Your task to perform on an android device: change alarm snooze length Image 0: 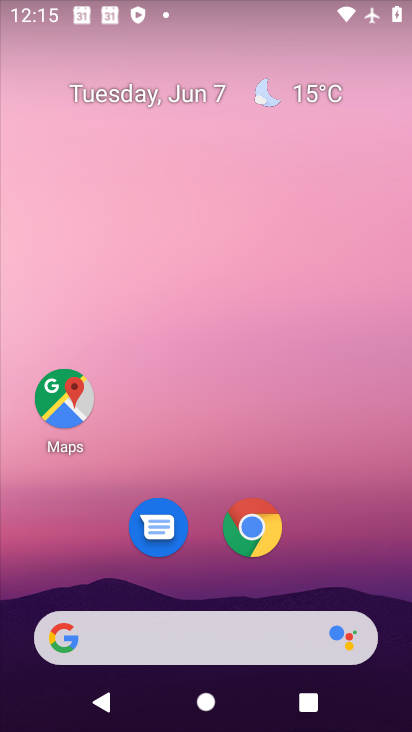
Step 0: drag from (231, 503) to (177, 258)
Your task to perform on an android device: change alarm snooze length Image 1: 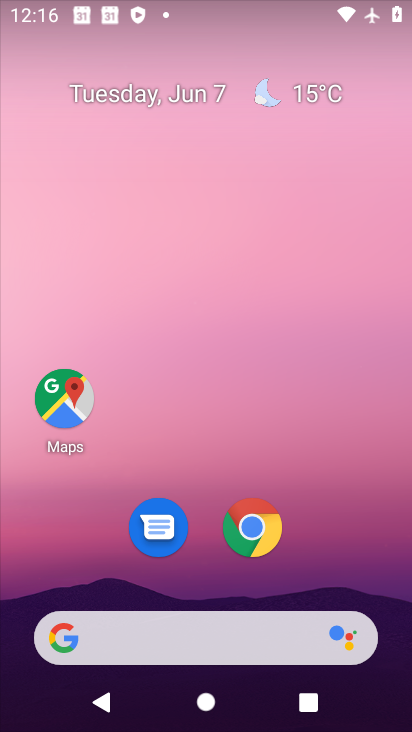
Step 1: click (411, 402)
Your task to perform on an android device: change alarm snooze length Image 2: 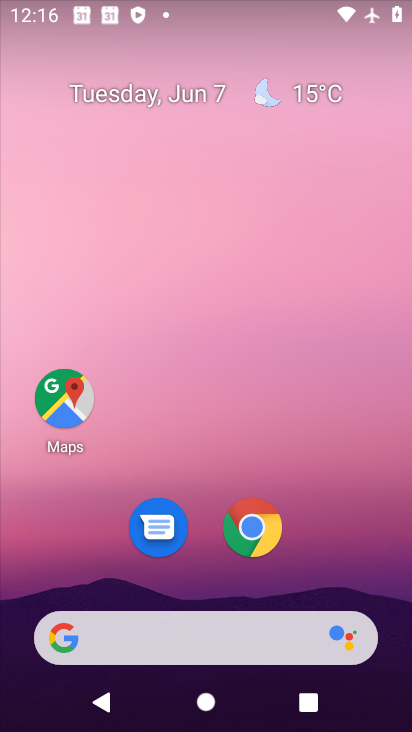
Step 2: drag from (275, 572) to (227, 12)
Your task to perform on an android device: change alarm snooze length Image 3: 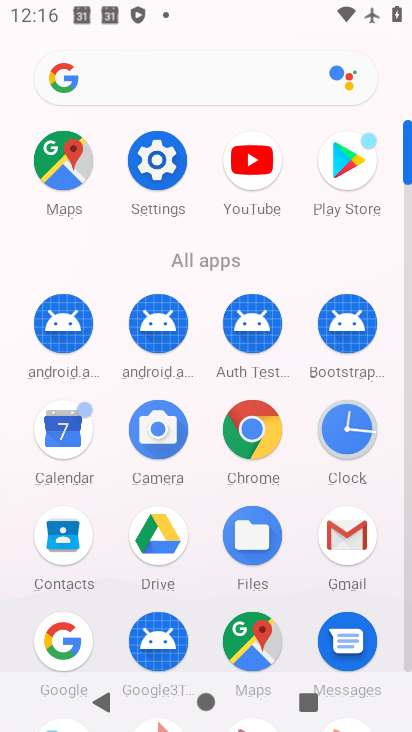
Step 3: click (347, 437)
Your task to perform on an android device: change alarm snooze length Image 4: 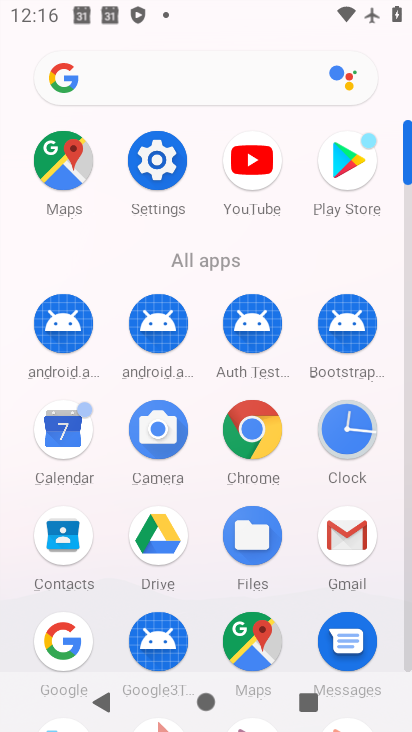
Step 4: click (355, 429)
Your task to perform on an android device: change alarm snooze length Image 5: 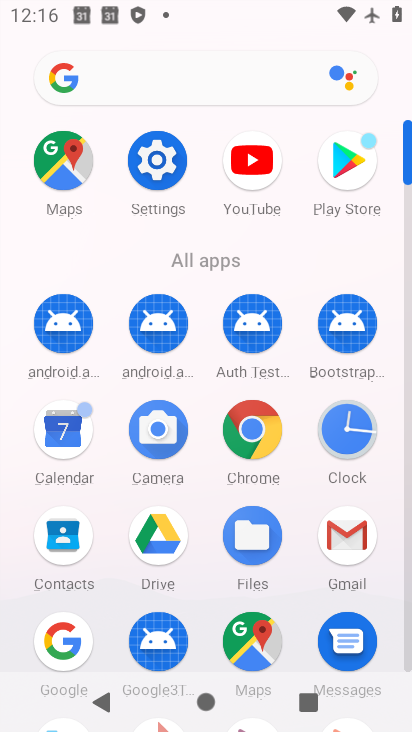
Step 5: click (355, 429)
Your task to perform on an android device: change alarm snooze length Image 6: 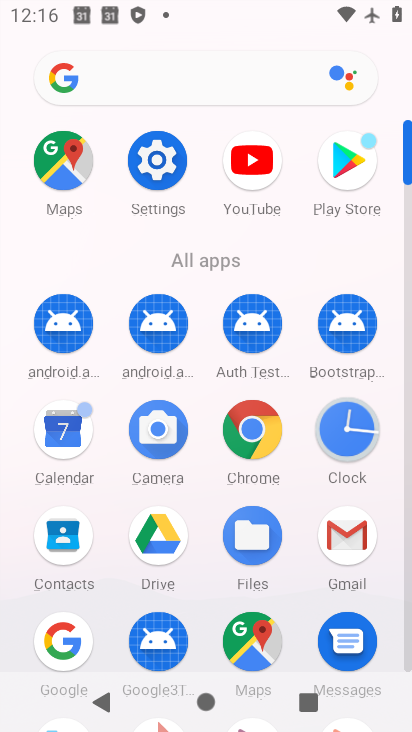
Step 6: click (345, 434)
Your task to perform on an android device: change alarm snooze length Image 7: 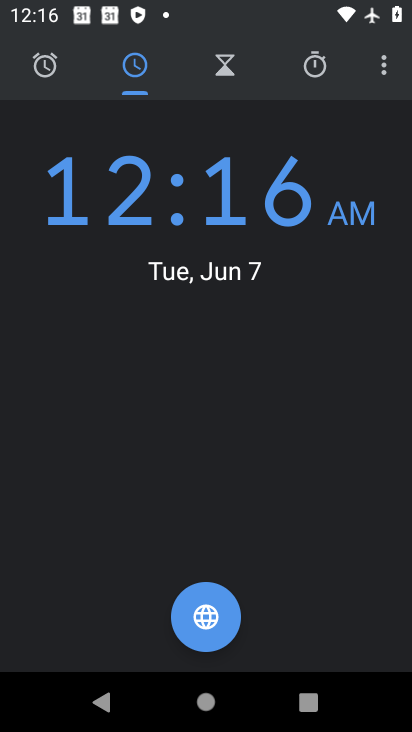
Step 7: click (48, 70)
Your task to perform on an android device: change alarm snooze length Image 8: 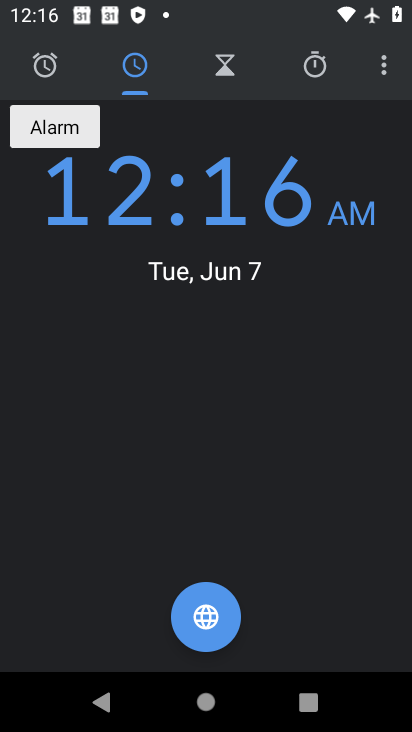
Step 8: click (387, 71)
Your task to perform on an android device: change alarm snooze length Image 9: 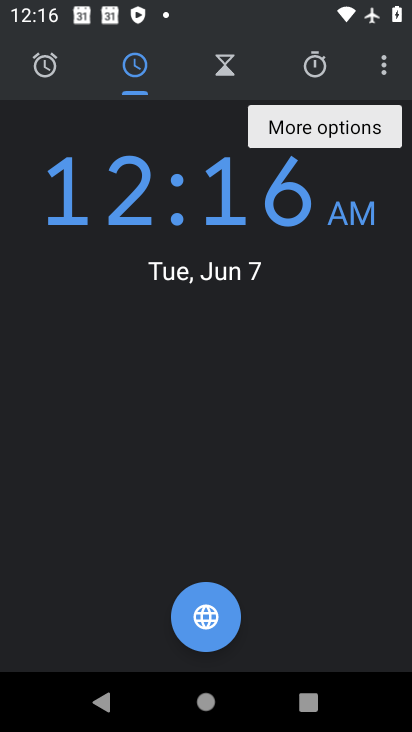
Step 9: click (382, 78)
Your task to perform on an android device: change alarm snooze length Image 10: 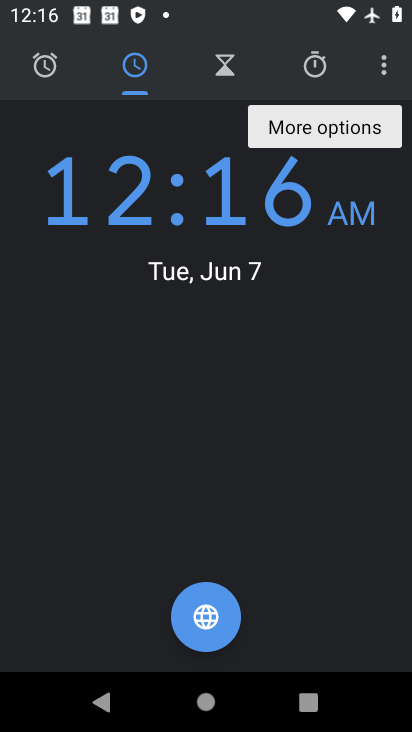
Step 10: drag from (382, 78) to (359, 118)
Your task to perform on an android device: change alarm snooze length Image 11: 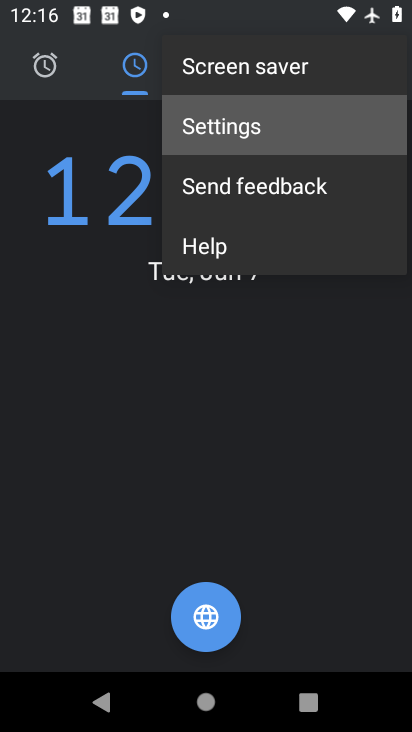
Step 11: click (203, 123)
Your task to perform on an android device: change alarm snooze length Image 12: 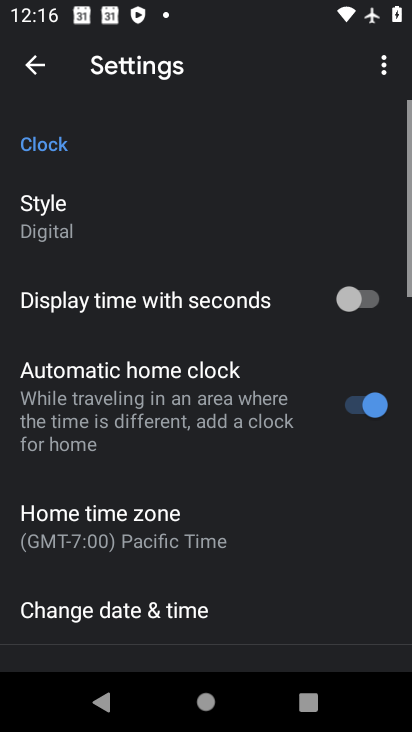
Step 12: click (205, 122)
Your task to perform on an android device: change alarm snooze length Image 13: 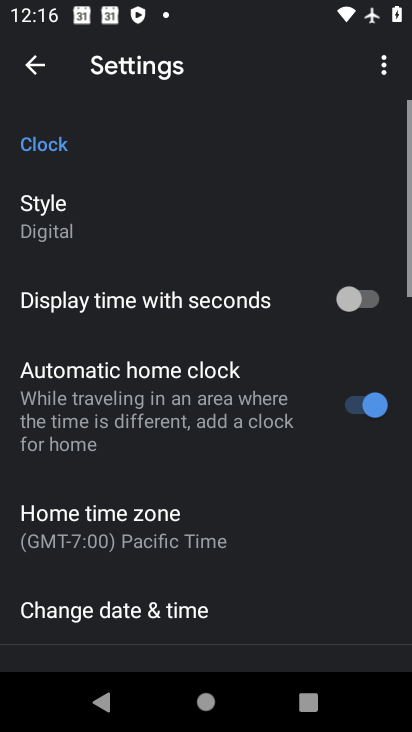
Step 13: click (205, 122)
Your task to perform on an android device: change alarm snooze length Image 14: 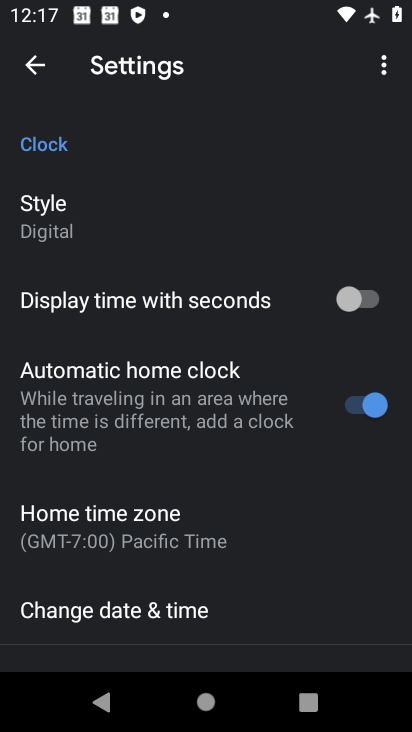
Step 14: drag from (231, 452) to (207, 225)
Your task to perform on an android device: change alarm snooze length Image 15: 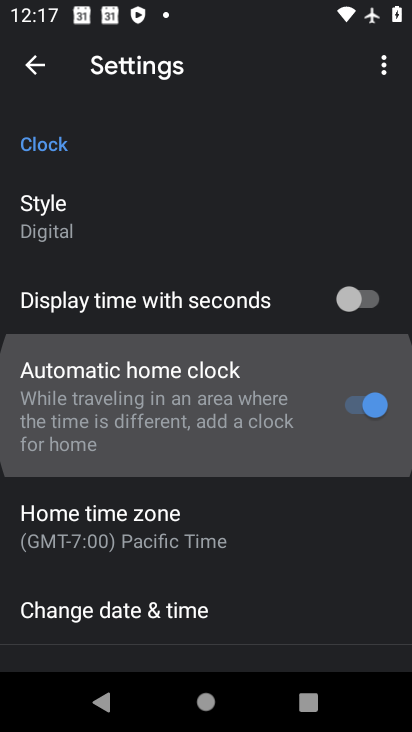
Step 15: drag from (220, 445) to (178, 158)
Your task to perform on an android device: change alarm snooze length Image 16: 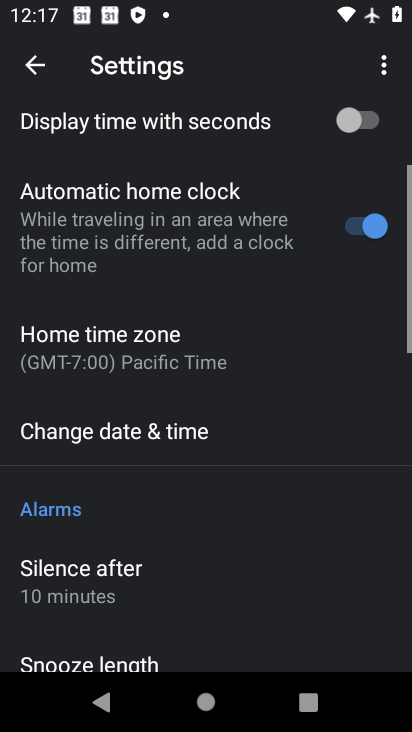
Step 16: drag from (245, 425) to (245, 86)
Your task to perform on an android device: change alarm snooze length Image 17: 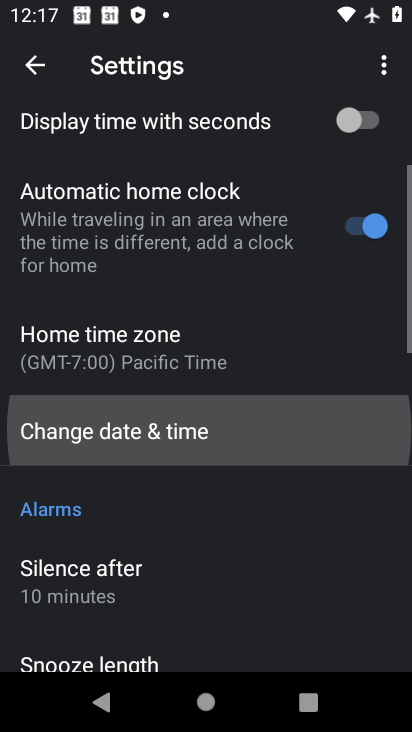
Step 17: drag from (268, 453) to (256, 23)
Your task to perform on an android device: change alarm snooze length Image 18: 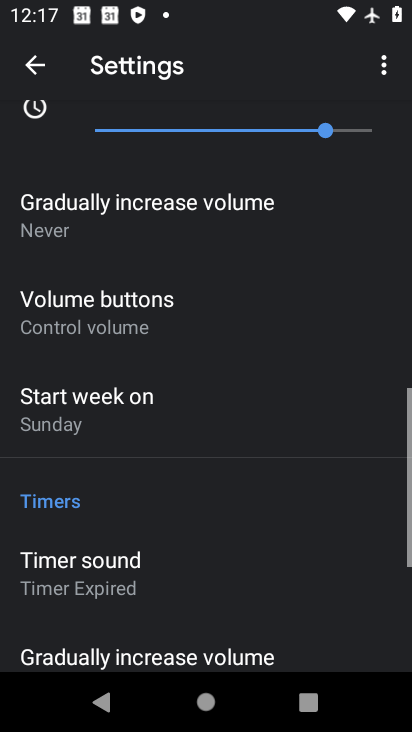
Step 18: drag from (238, 430) to (206, 62)
Your task to perform on an android device: change alarm snooze length Image 19: 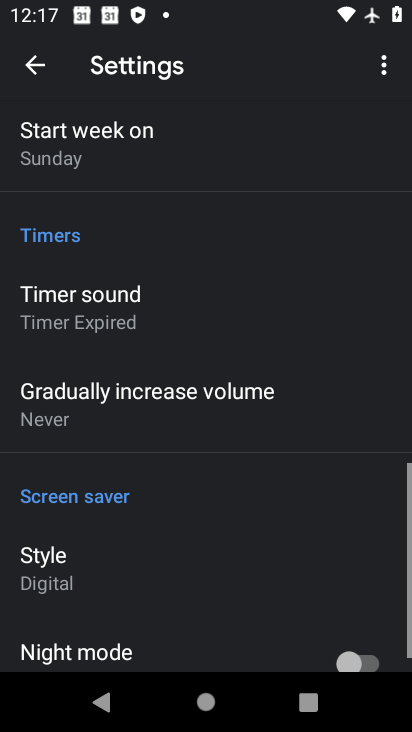
Step 19: drag from (212, 480) to (166, 132)
Your task to perform on an android device: change alarm snooze length Image 20: 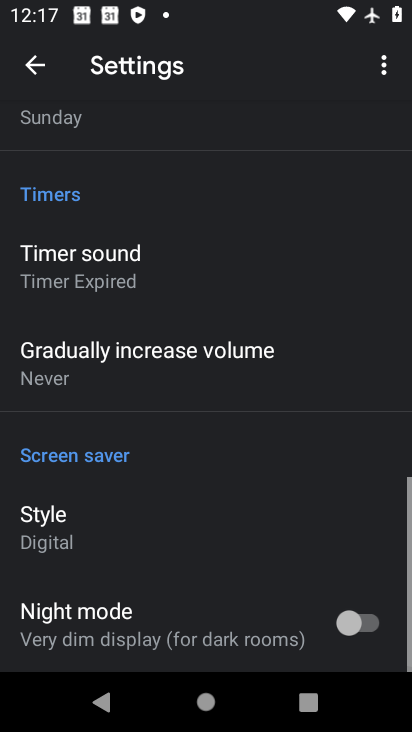
Step 20: drag from (177, 513) to (173, 164)
Your task to perform on an android device: change alarm snooze length Image 21: 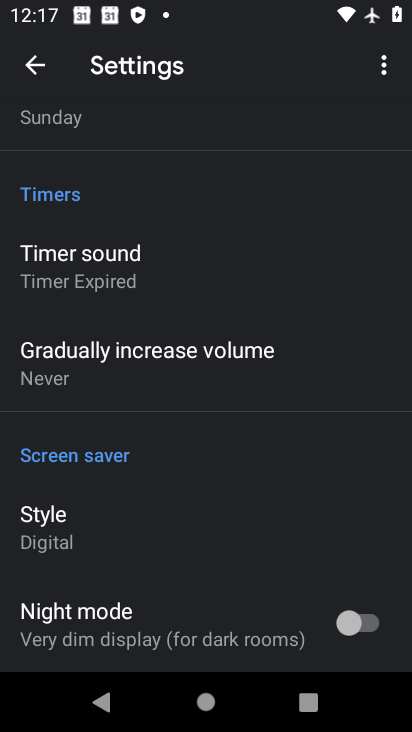
Step 21: drag from (186, 270) to (223, 449)
Your task to perform on an android device: change alarm snooze length Image 22: 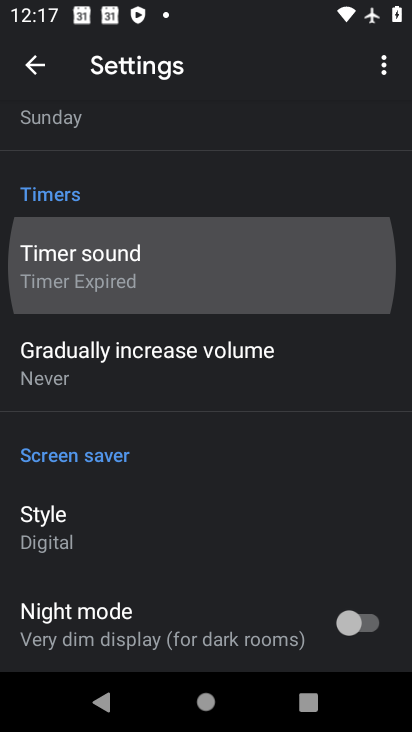
Step 22: drag from (148, 186) to (196, 605)
Your task to perform on an android device: change alarm snooze length Image 23: 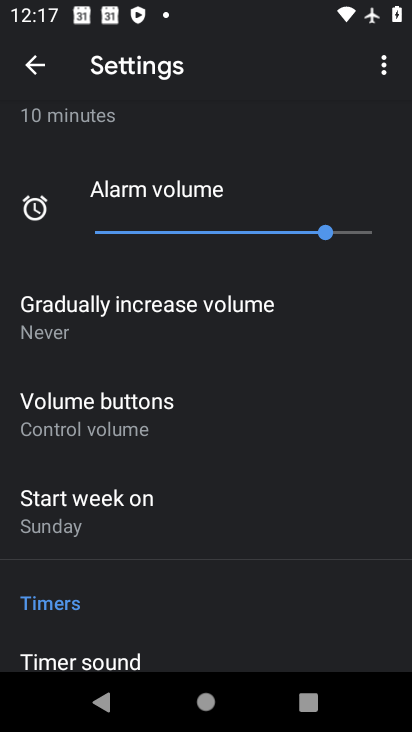
Step 23: drag from (213, 504) to (152, 100)
Your task to perform on an android device: change alarm snooze length Image 24: 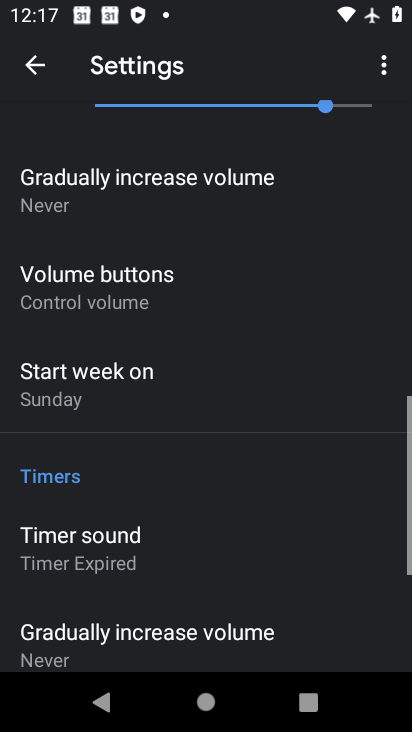
Step 24: drag from (245, 515) to (202, 173)
Your task to perform on an android device: change alarm snooze length Image 25: 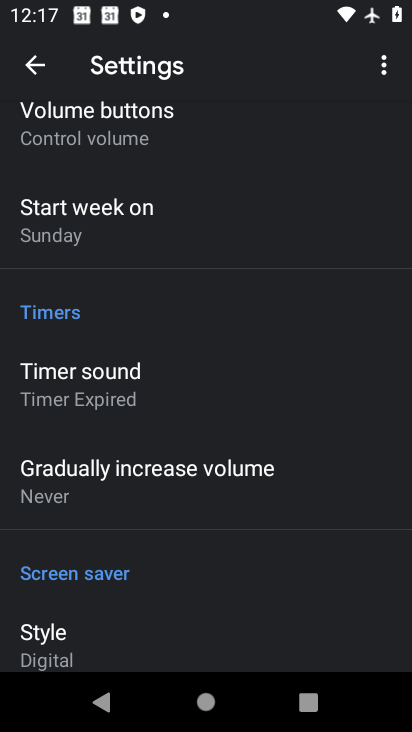
Step 25: drag from (170, 503) to (201, 159)
Your task to perform on an android device: change alarm snooze length Image 26: 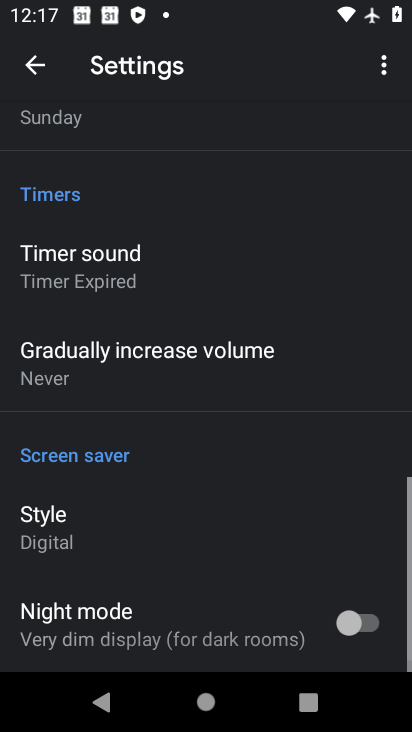
Step 26: drag from (207, 312) to (213, 54)
Your task to perform on an android device: change alarm snooze length Image 27: 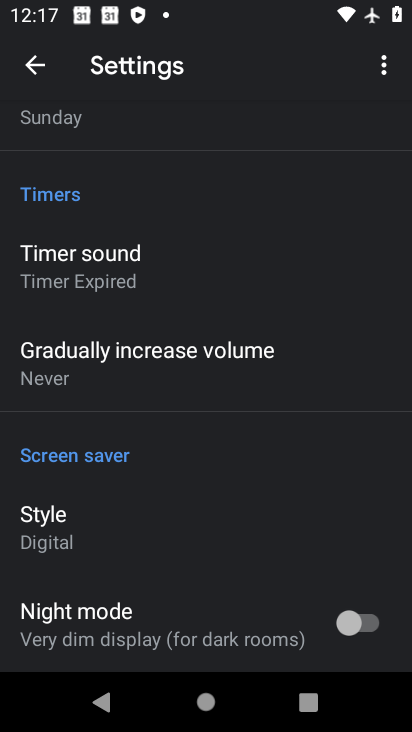
Step 27: drag from (159, 253) to (213, 642)
Your task to perform on an android device: change alarm snooze length Image 28: 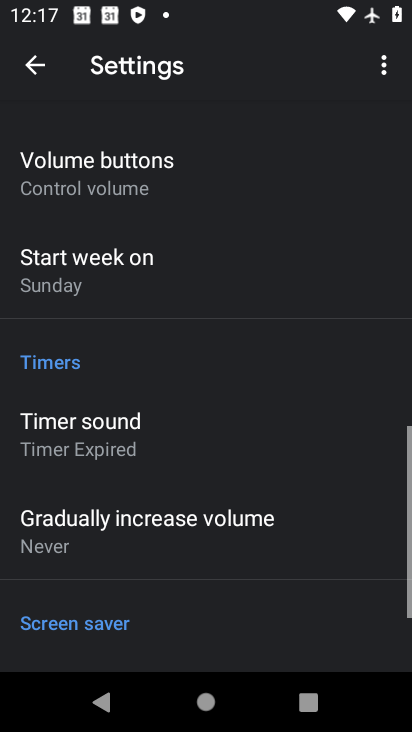
Step 28: drag from (138, 222) to (247, 589)
Your task to perform on an android device: change alarm snooze length Image 29: 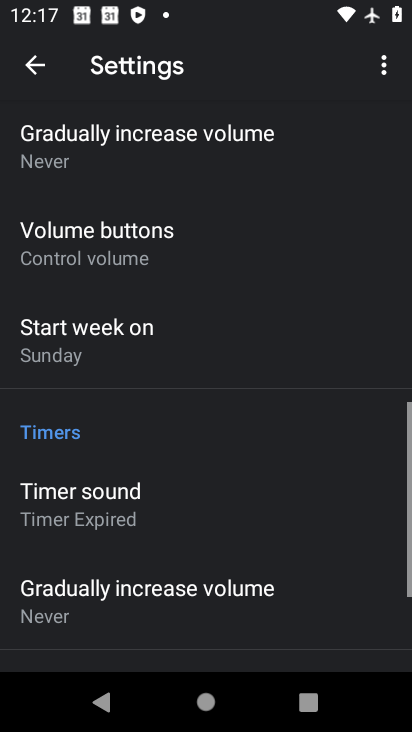
Step 29: drag from (172, 269) to (258, 719)
Your task to perform on an android device: change alarm snooze length Image 30: 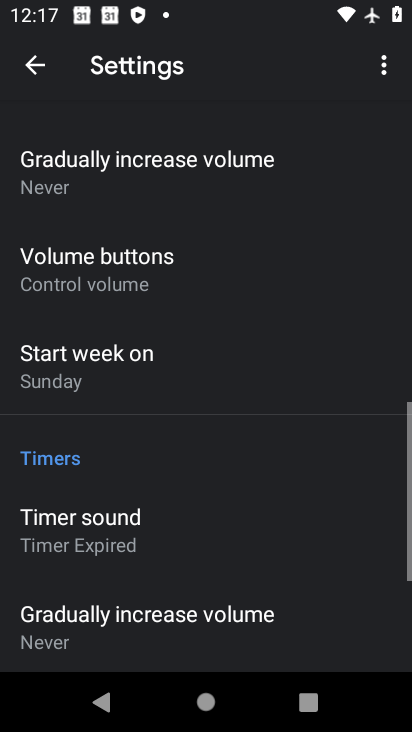
Step 30: drag from (156, 405) to (214, 578)
Your task to perform on an android device: change alarm snooze length Image 31: 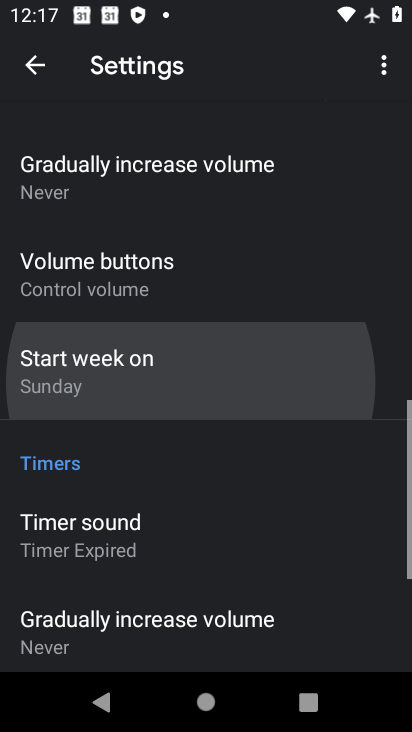
Step 31: drag from (167, 221) to (254, 543)
Your task to perform on an android device: change alarm snooze length Image 32: 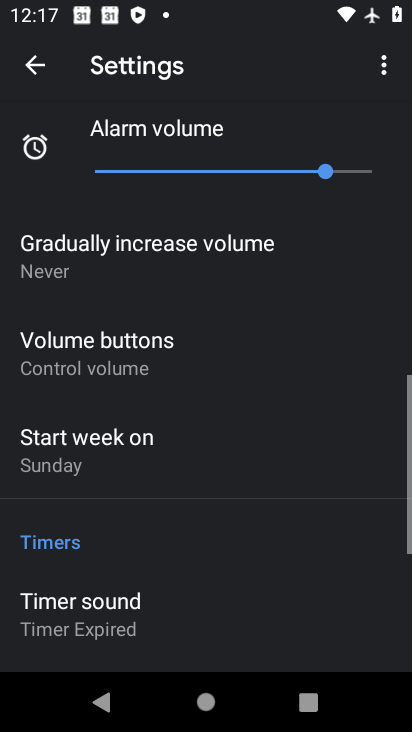
Step 32: drag from (166, 239) to (277, 656)
Your task to perform on an android device: change alarm snooze length Image 33: 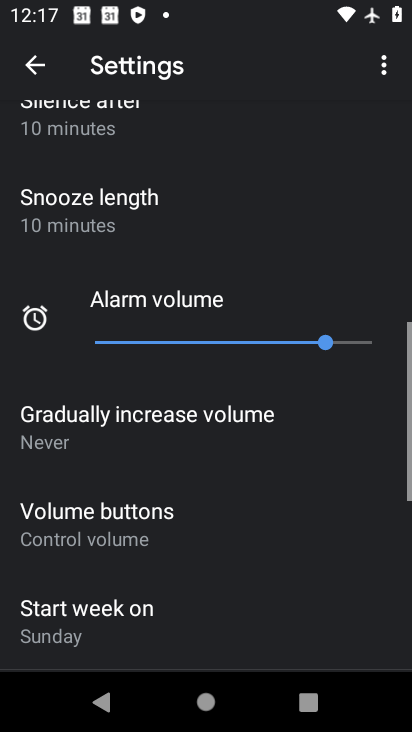
Step 33: drag from (204, 254) to (292, 624)
Your task to perform on an android device: change alarm snooze length Image 34: 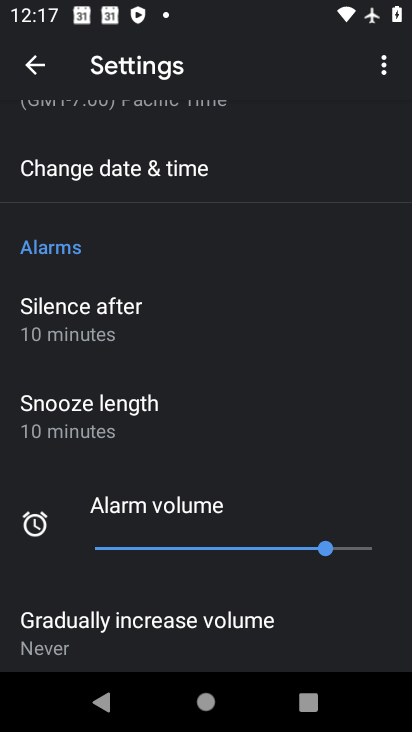
Step 34: click (98, 223)
Your task to perform on an android device: change alarm snooze length Image 35: 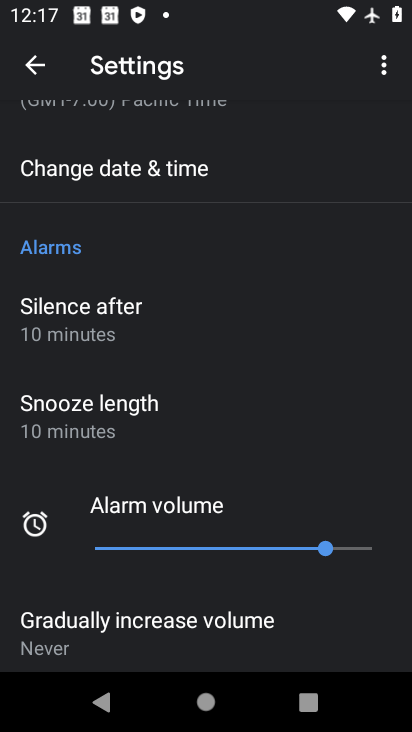
Step 35: click (106, 325)
Your task to perform on an android device: change alarm snooze length Image 36: 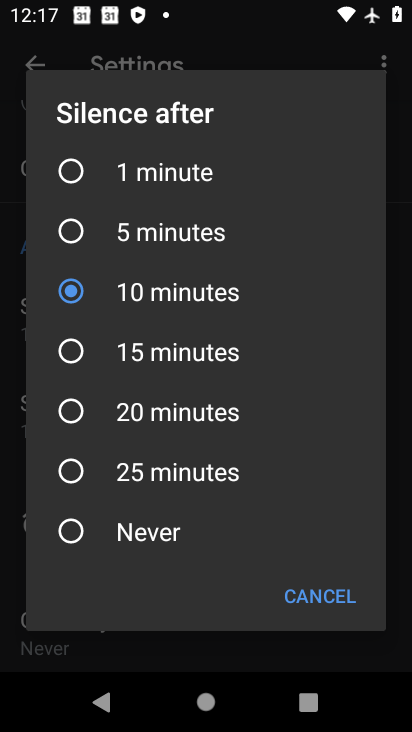
Step 36: click (66, 350)
Your task to perform on an android device: change alarm snooze length Image 37: 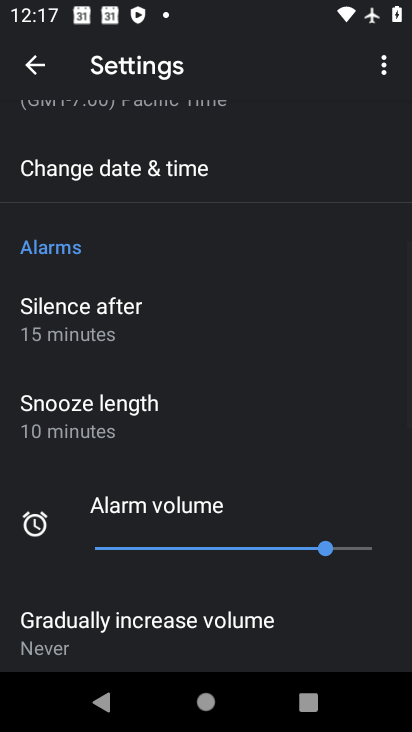
Step 37: task complete